Your task to perform on an android device: Open Yahoo.com Image 0: 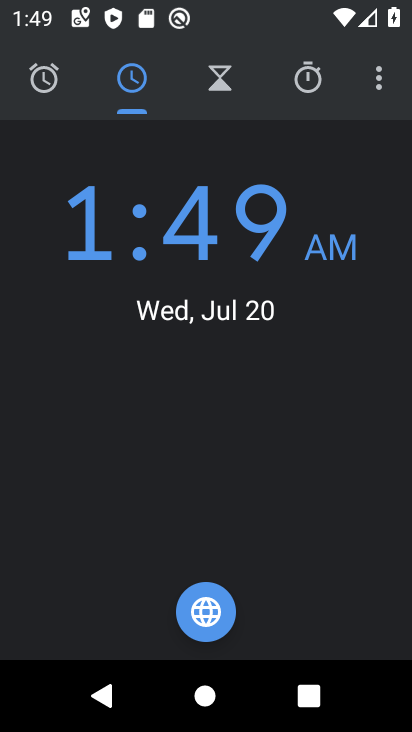
Step 0: press back button
Your task to perform on an android device: Open Yahoo.com Image 1: 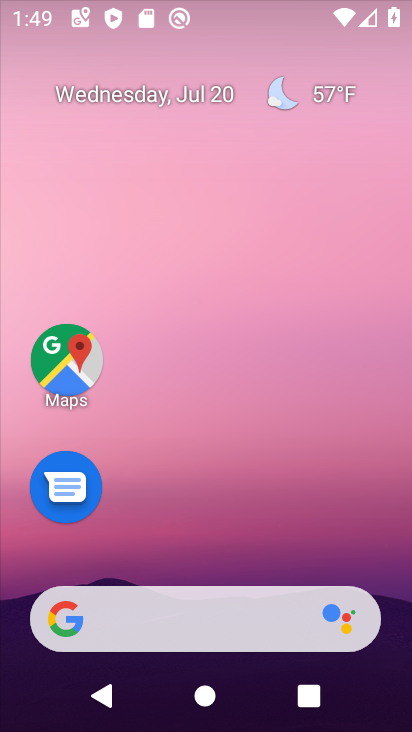
Step 1: drag from (160, 549) to (246, 16)
Your task to perform on an android device: Open Yahoo.com Image 2: 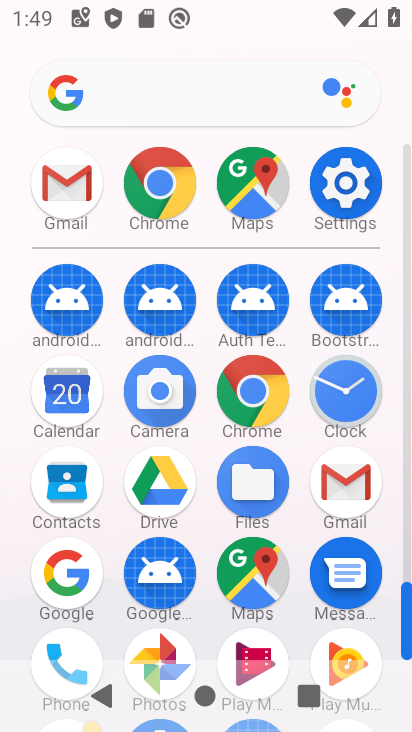
Step 2: click (180, 204)
Your task to perform on an android device: Open Yahoo.com Image 3: 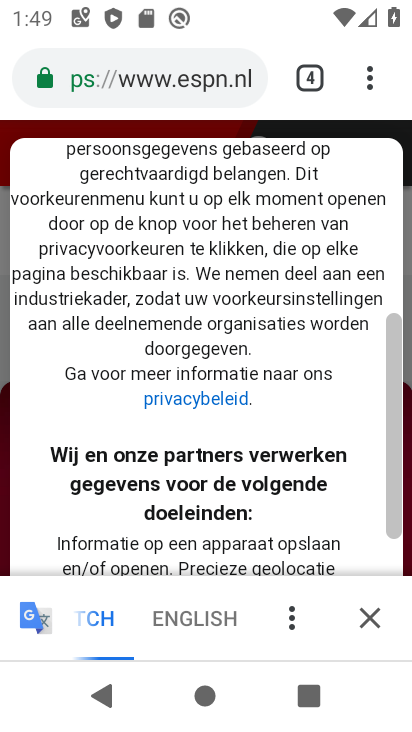
Step 3: click (308, 82)
Your task to perform on an android device: Open Yahoo.com Image 4: 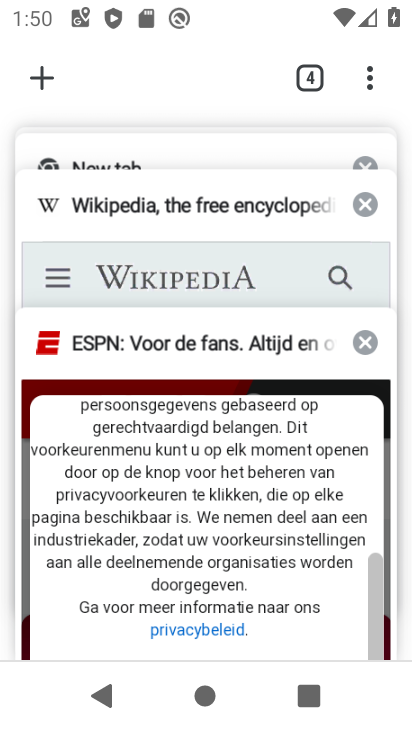
Step 4: drag from (68, 145) to (47, 656)
Your task to perform on an android device: Open Yahoo.com Image 5: 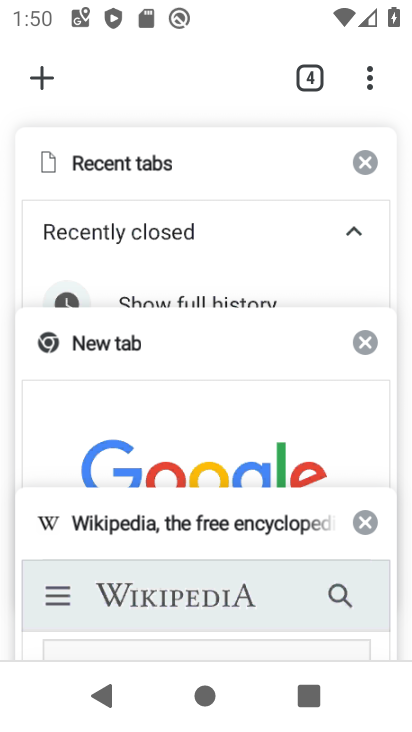
Step 5: click (108, 375)
Your task to perform on an android device: Open Yahoo.com Image 6: 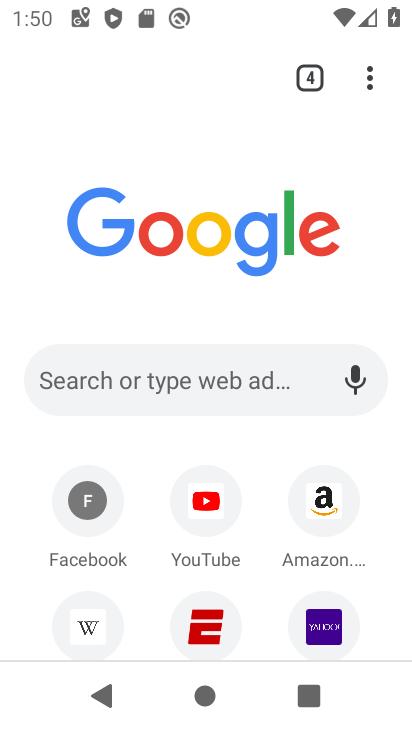
Step 6: click (318, 626)
Your task to perform on an android device: Open Yahoo.com Image 7: 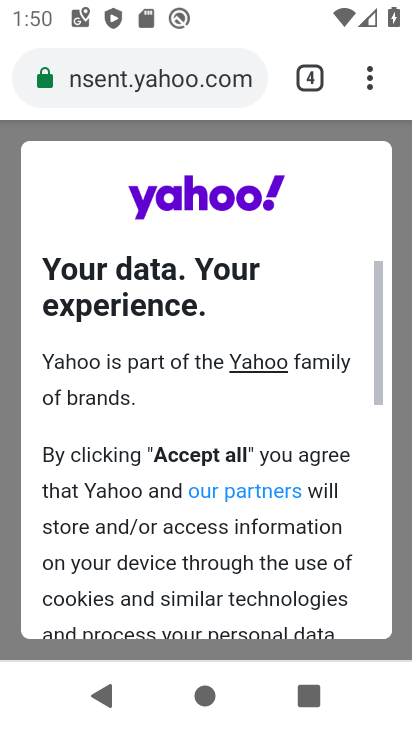
Step 7: task complete